Your task to perform on an android device: open app "Spotify: Music and Podcasts" (install if not already installed) Image 0: 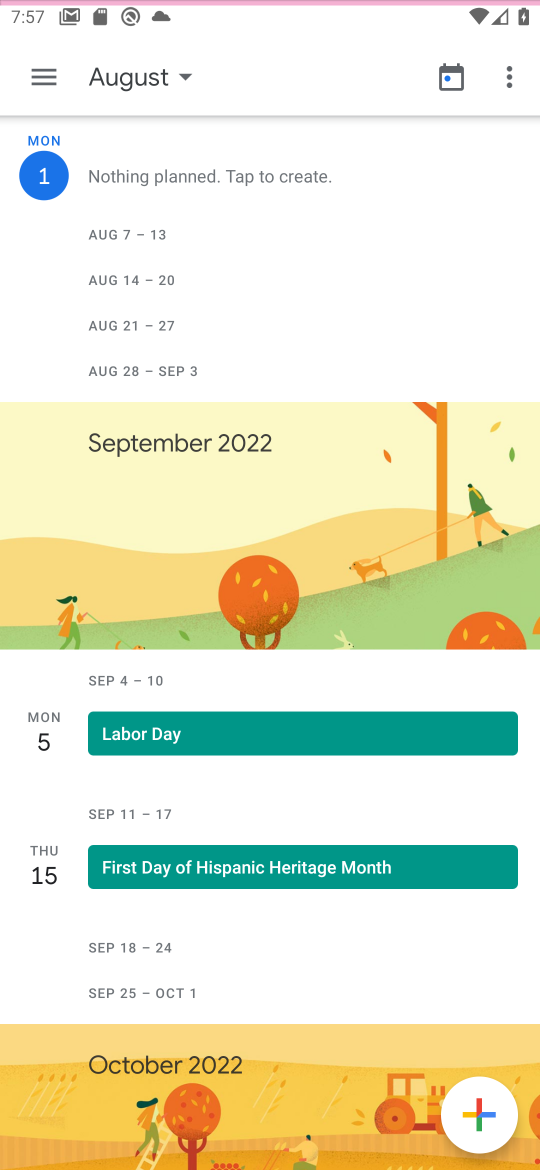
Step 0: press home button
Your task to perform on an android device: open app "Spotify: Music and Podcasts" (install if not already installed) Image 1: 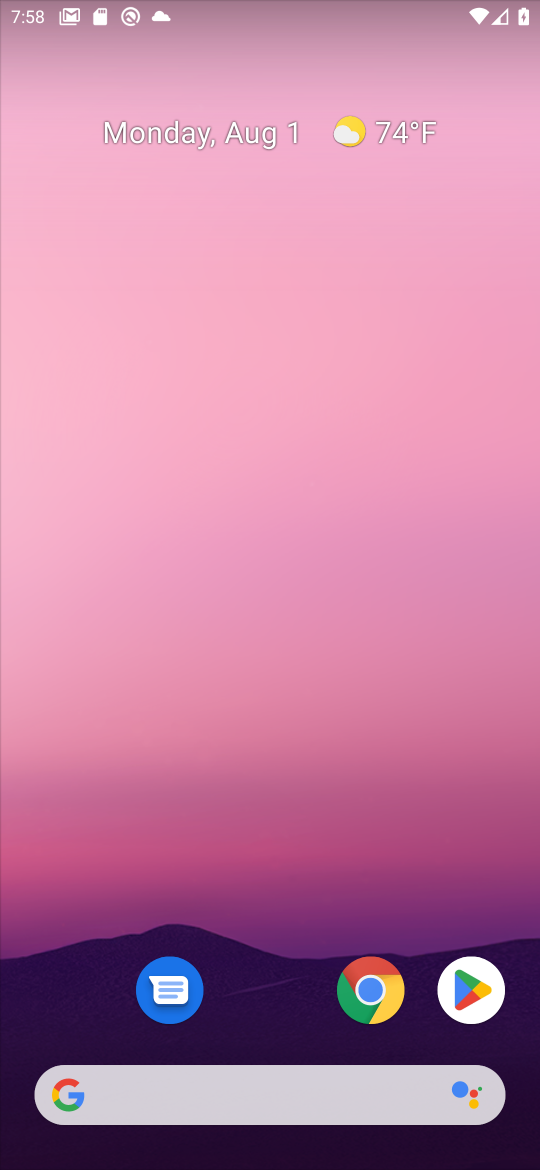
Step 1: click (444, 1007)
Your task to perform on an android device: open app "Spotify: Music and Podcasts" (install if not already installed) Image 2: 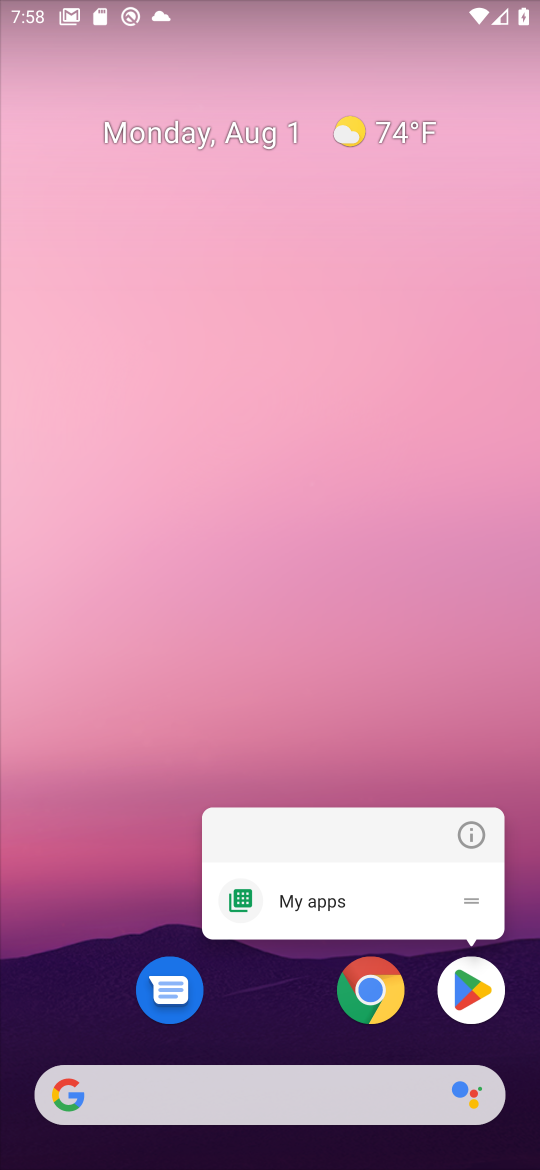
Step 2: click (462, 1023)
Your task to perform on an android device: open app "Spotify: Music and Podcasts" (install if not already installed) Image 3: 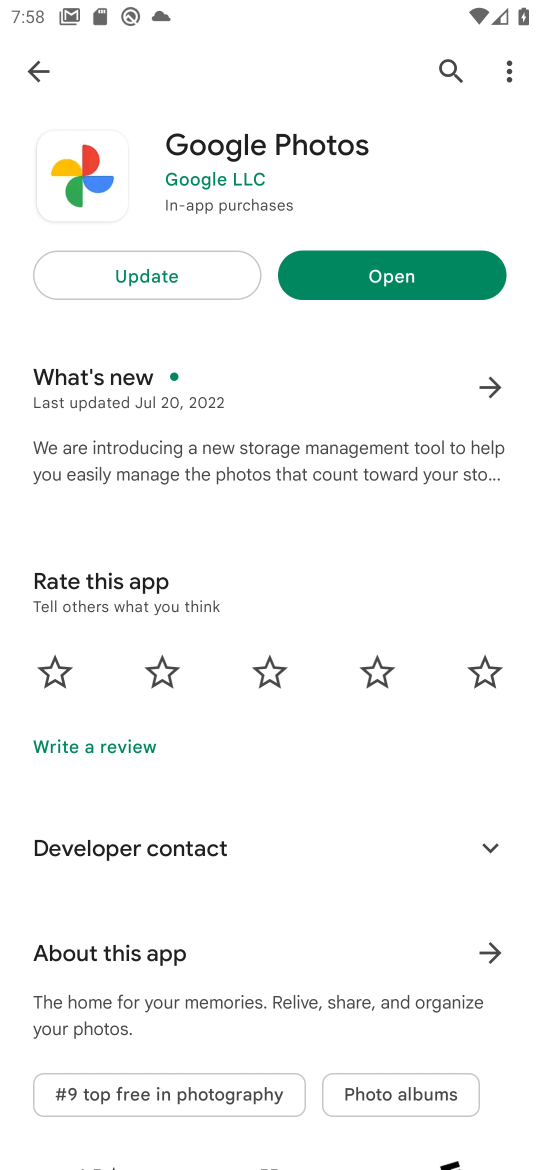
Step 3: click (447, 72)
Your task to perform on an android device: open app "Spotify: Music and Podcasts" (install if not already installed) Image 4: 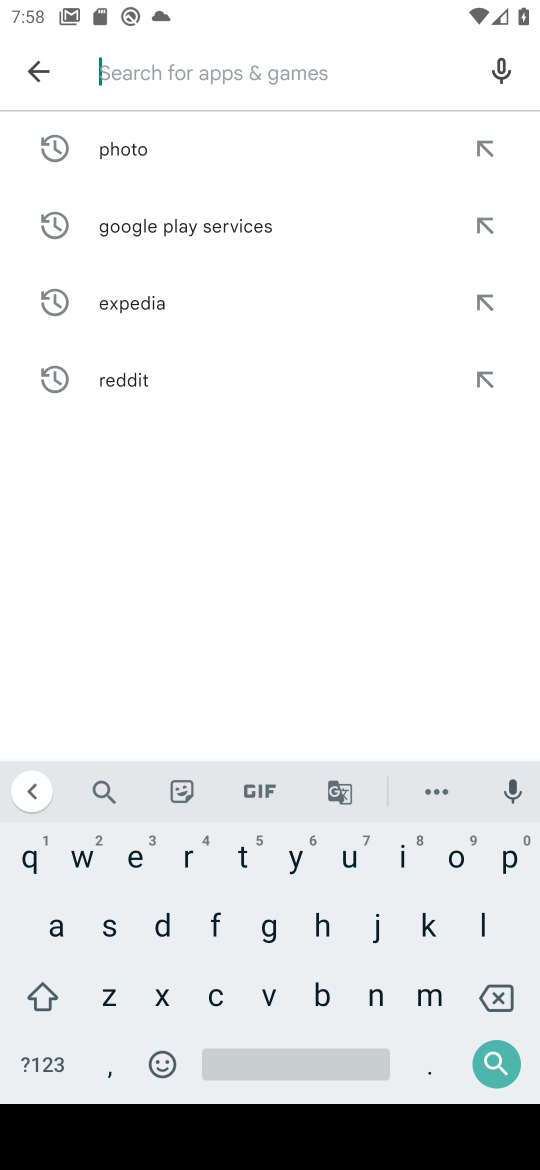
Step 4: click (106, 934)
Your task to perform on an android device: open app "Spotify: Music and Podcasts" (install if not already installed) Image 5: 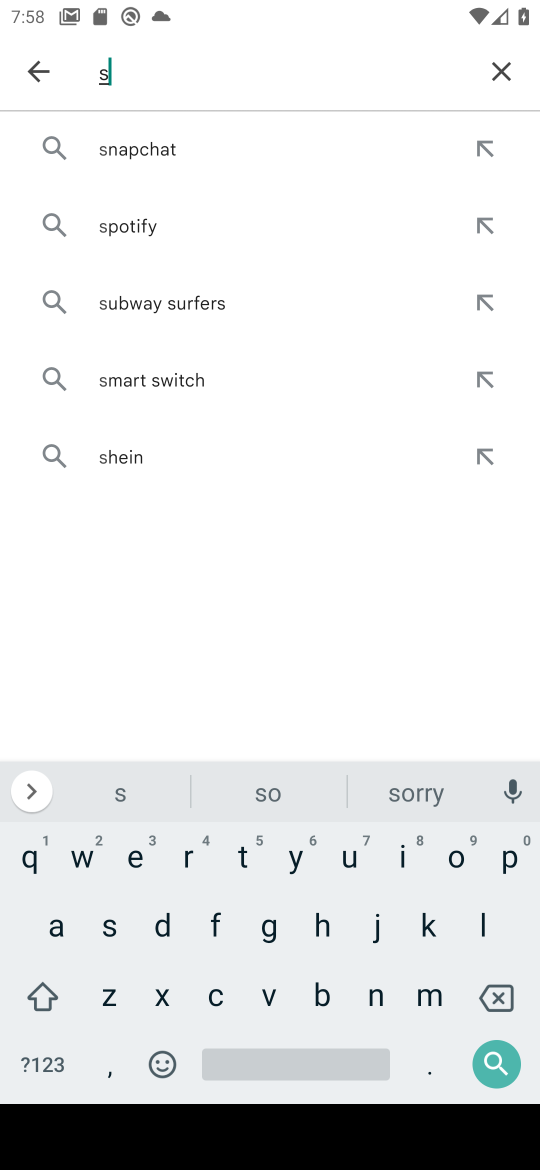
Step 5: click (498, 857)
Your task to perform on an android device: open app "Spotify: Music and Podcasts" (install if not already installed) Image 6: 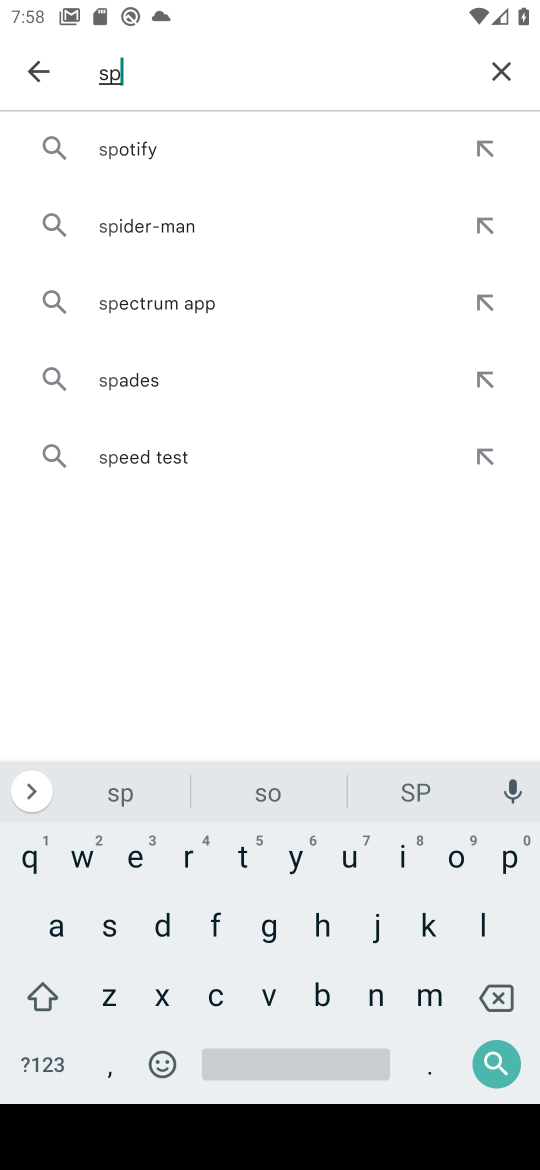
Step 6: click (452, 860)
Your task to perform on an android device: open app "Spotify: Music and Podcasts" (install if not already installed) Image 7: 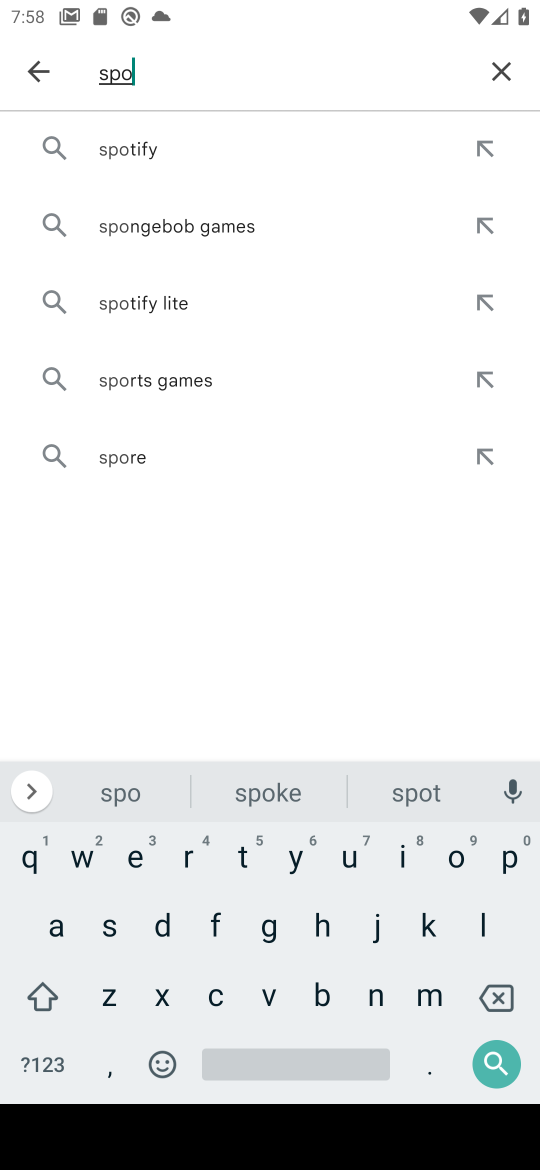
Step 7: click (171, 152)
Your task to perform on an android device: open app "Spotify: Music and Podcasts" (install if not already installed) Image 8: 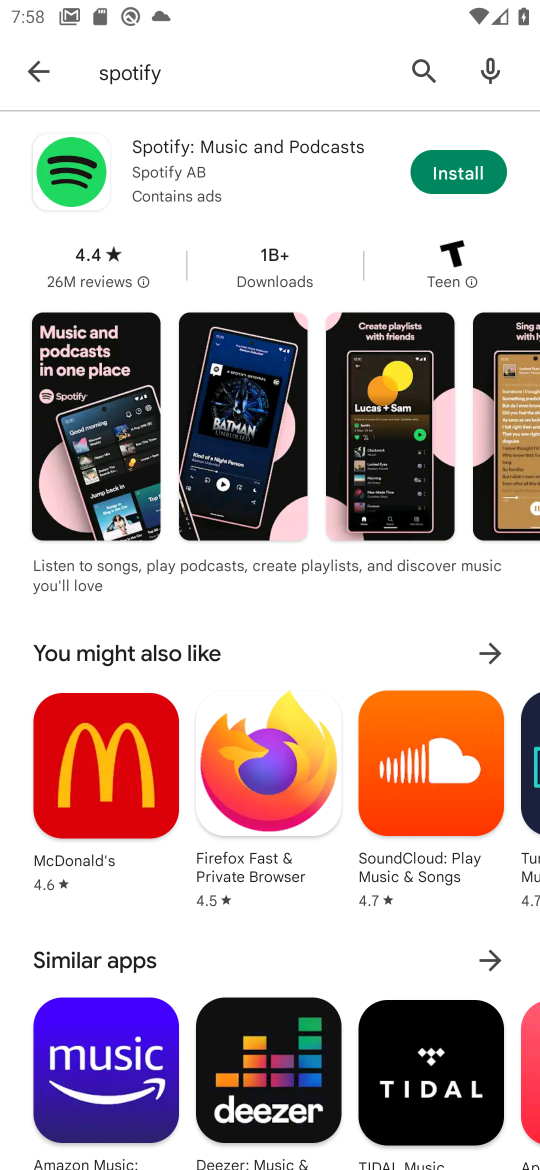
Step 8: click (453, 163)
Your task to perform on an android device: open app "Spotify: Music and Podcasts" (install if not already installed) Image 9: 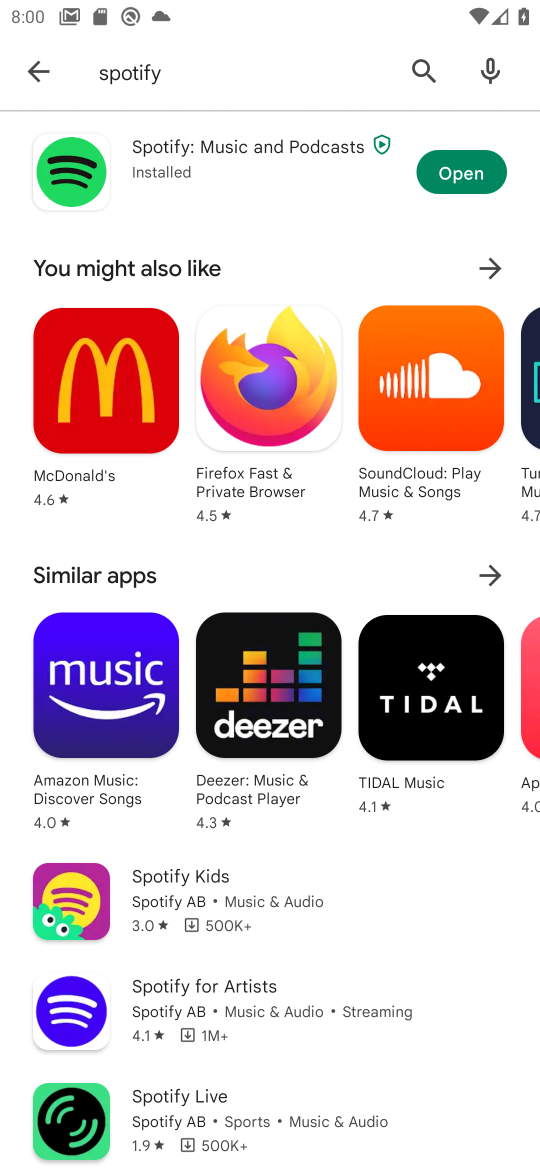
Step 9: click (453, 163)
Your task to perform on an android device: open app "Spotify: Music and Podcasts" (install if not already installed) Image 10: 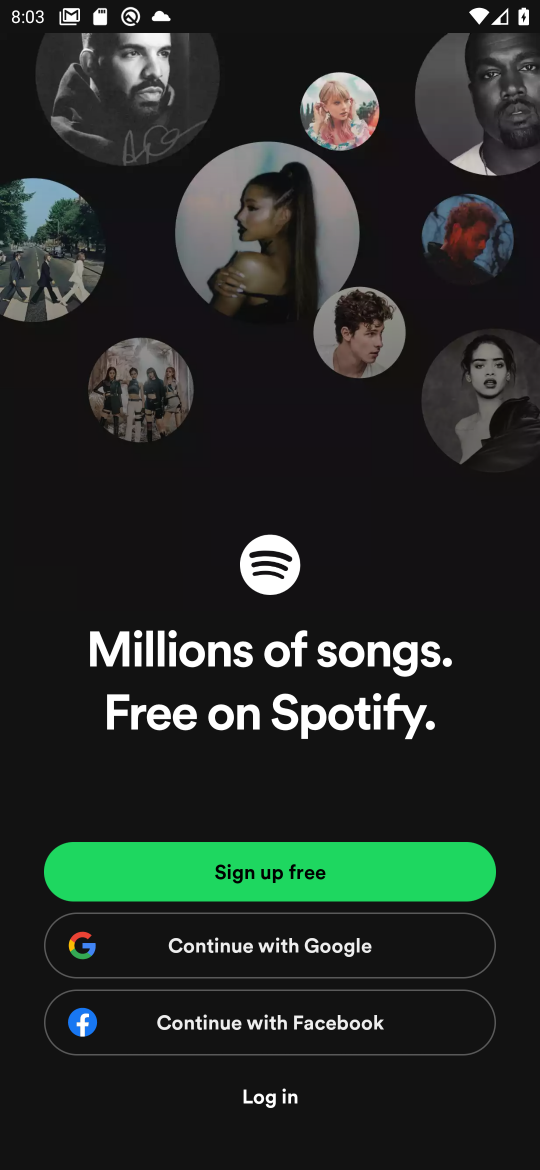
Step 10: task complete